Your task to perform on an android device: toggle wifi Image 0: 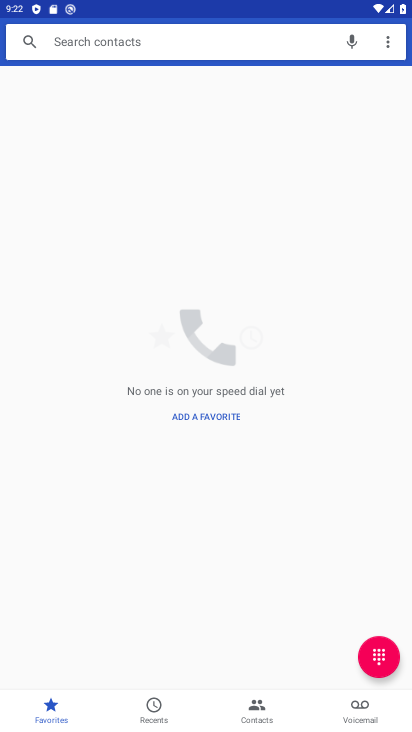
Step 0: press home button
Your task to perform on an android device: toggle wifi Image 1: 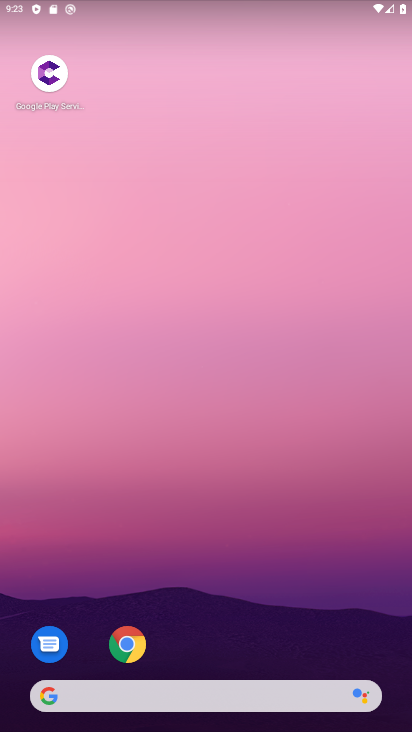
Step 1: drag from (269, 692) to (196, 60)
Your task to perform on an android device: toggle wifi Image 2: 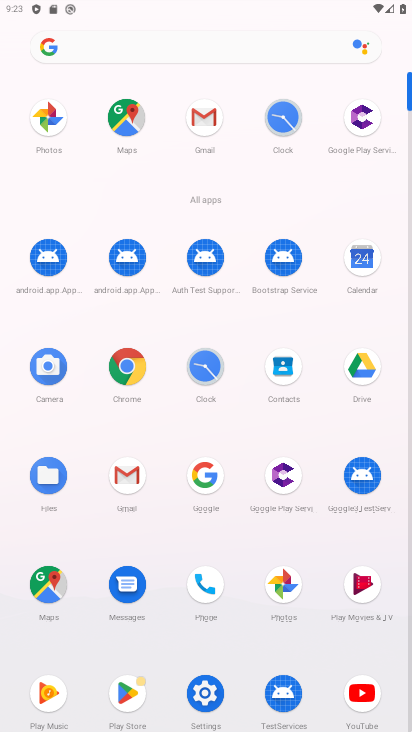
Step 2: click (191, 692)
Your task to perform on an android device: toggle wifi Image 3: 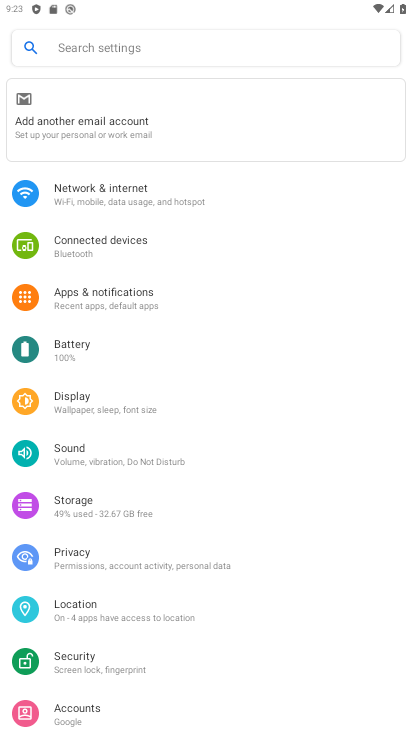
Step 3: click (130, 177)
Your task to perform on an android device: toggle wifi Image 4: 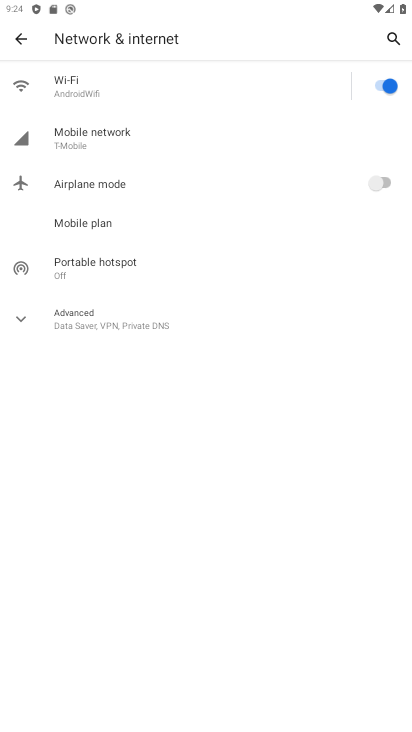
Step 4: click (391, 83)
Your task to perform on an android device: toggle wifi Image 5: 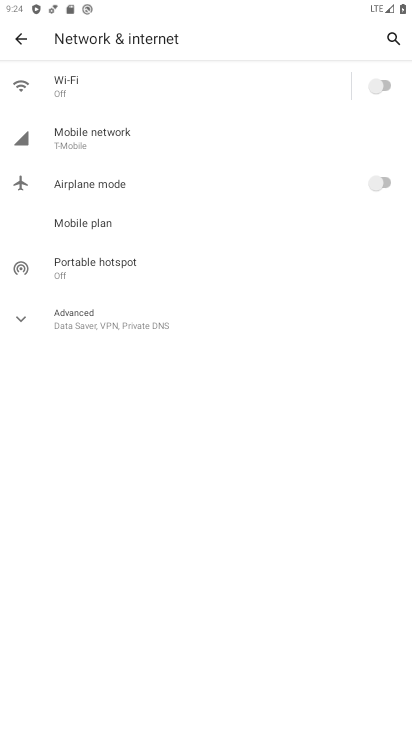
Step 5: task complete